Your task to perform on an android device: Go to eBay Image 0: 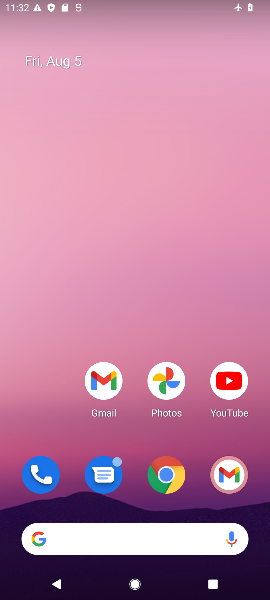
Step 0: click (162, 478)
Your task to perform on an android device: Go to eBay Image 1: 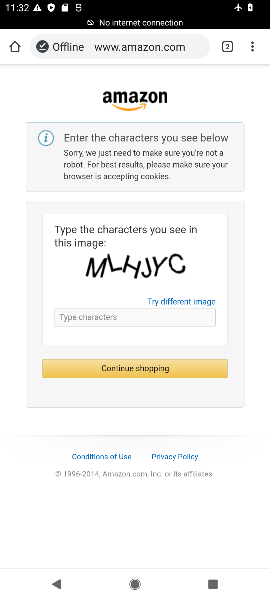
Step 1: click (103, 52)
Your task to perform on an android device: Go to eBay Image 2: 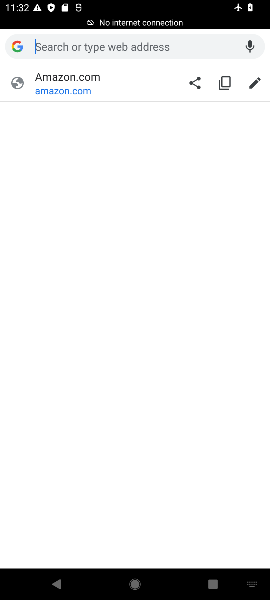
Step 2: type "eBay"
Your task to perform on an android device: Go to eBay Image 3: 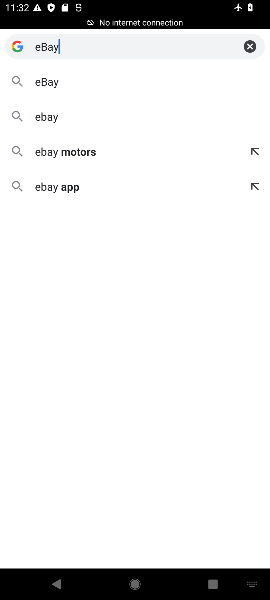
Step 3: click (41, 81)
Your task to perform on an android device: Go to eBay Image 4: 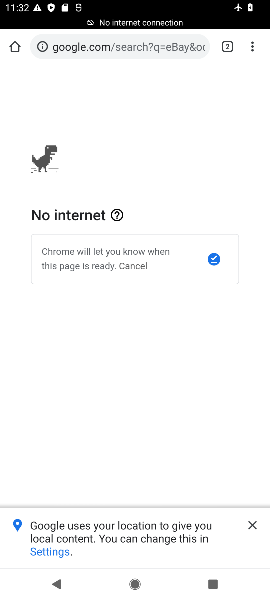
Step 4: task complete